Your task to perform on an android device: Go to CNN.com Image 0: 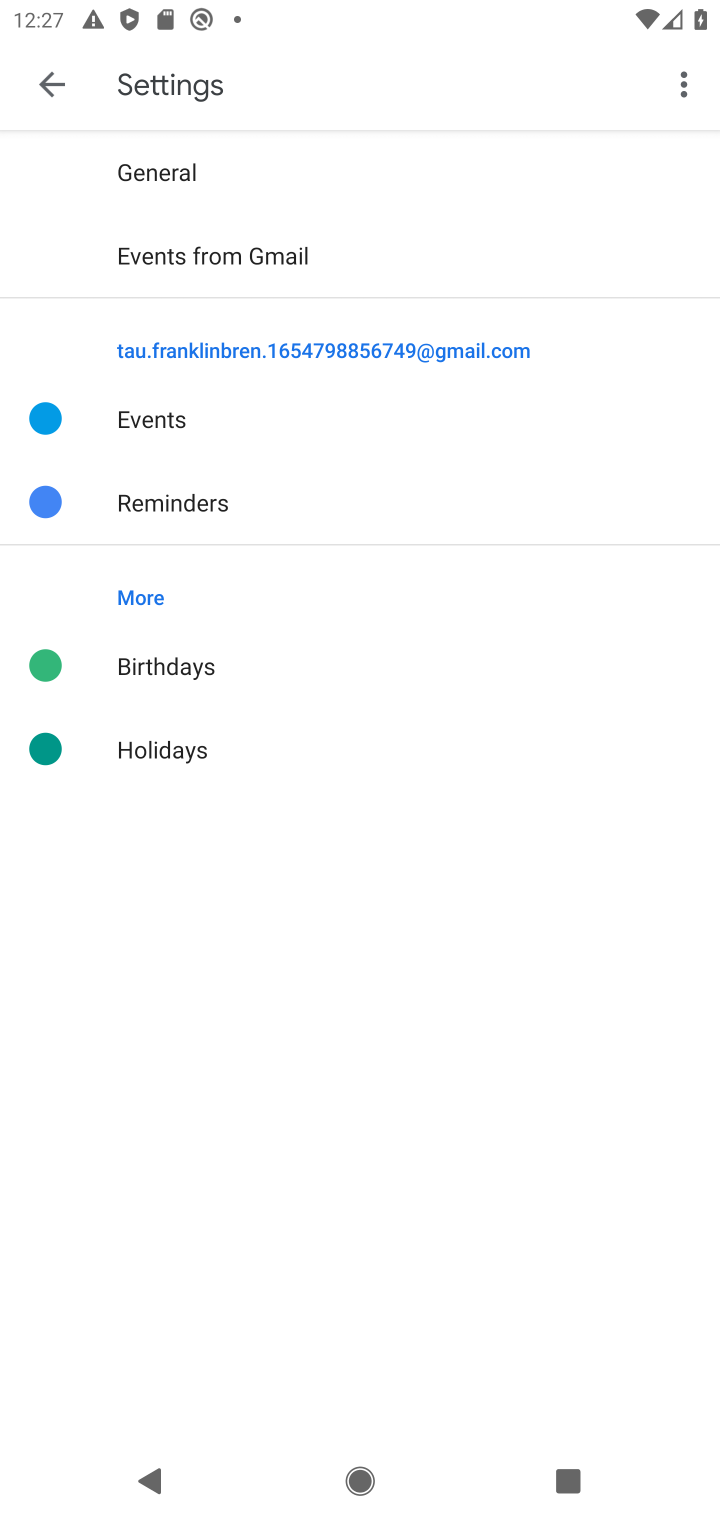
Step 0: press home button
Your task to perform on an android device: Go to CNN.com Image 1: 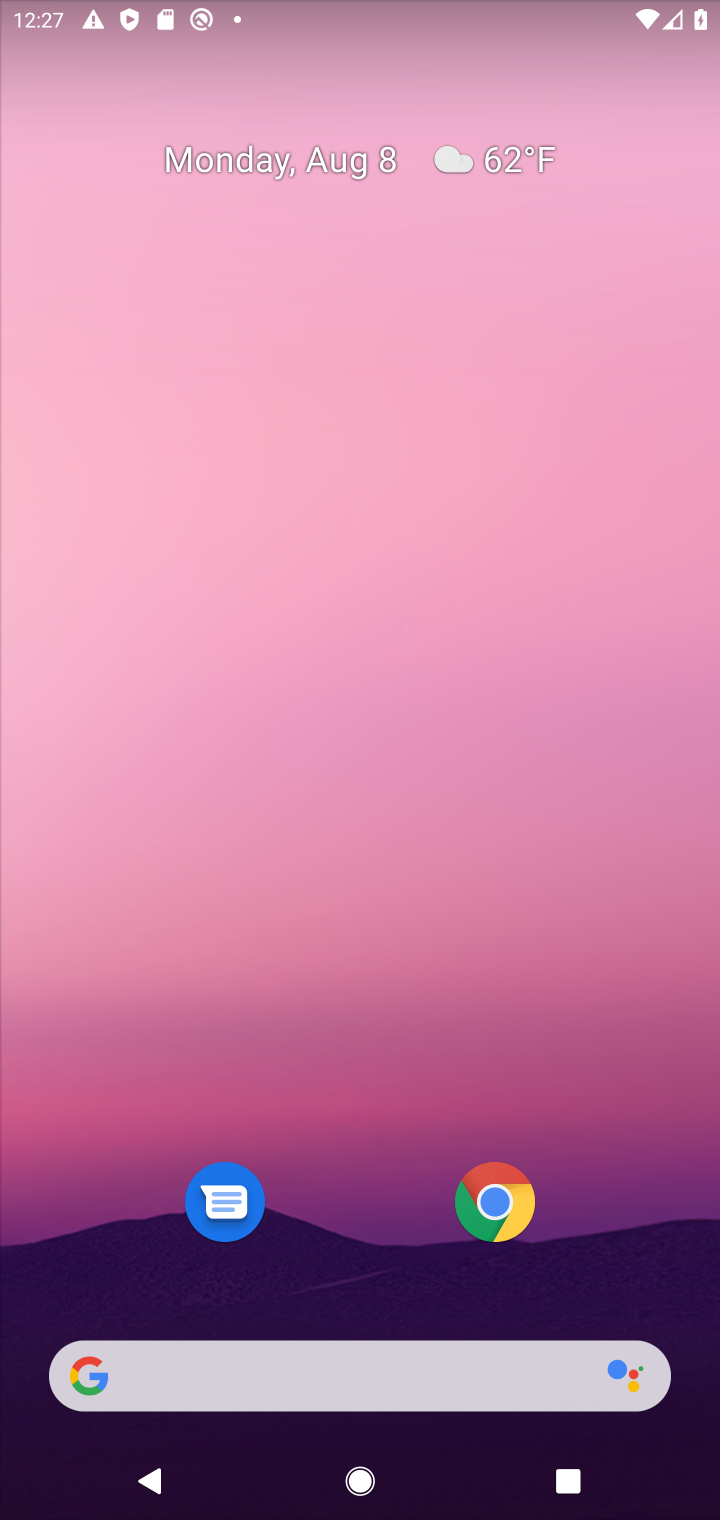
Step 1: drag from (380, 785) to (267, 71)
Your task to perform on an android device: Go to CNN.com Image 2: 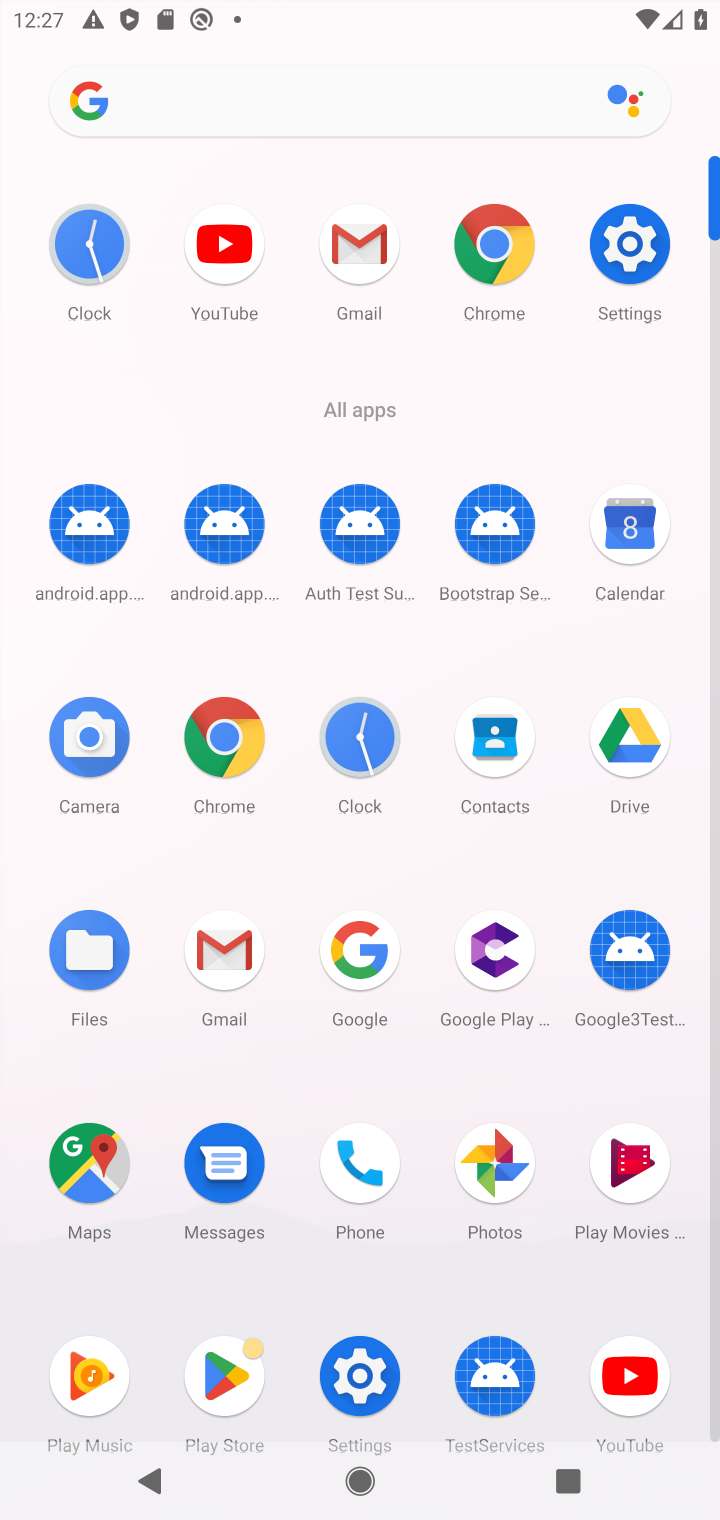
Step 2: click (501, 254)
Your task to perform on an android device: Go to CNN.com Image 3: 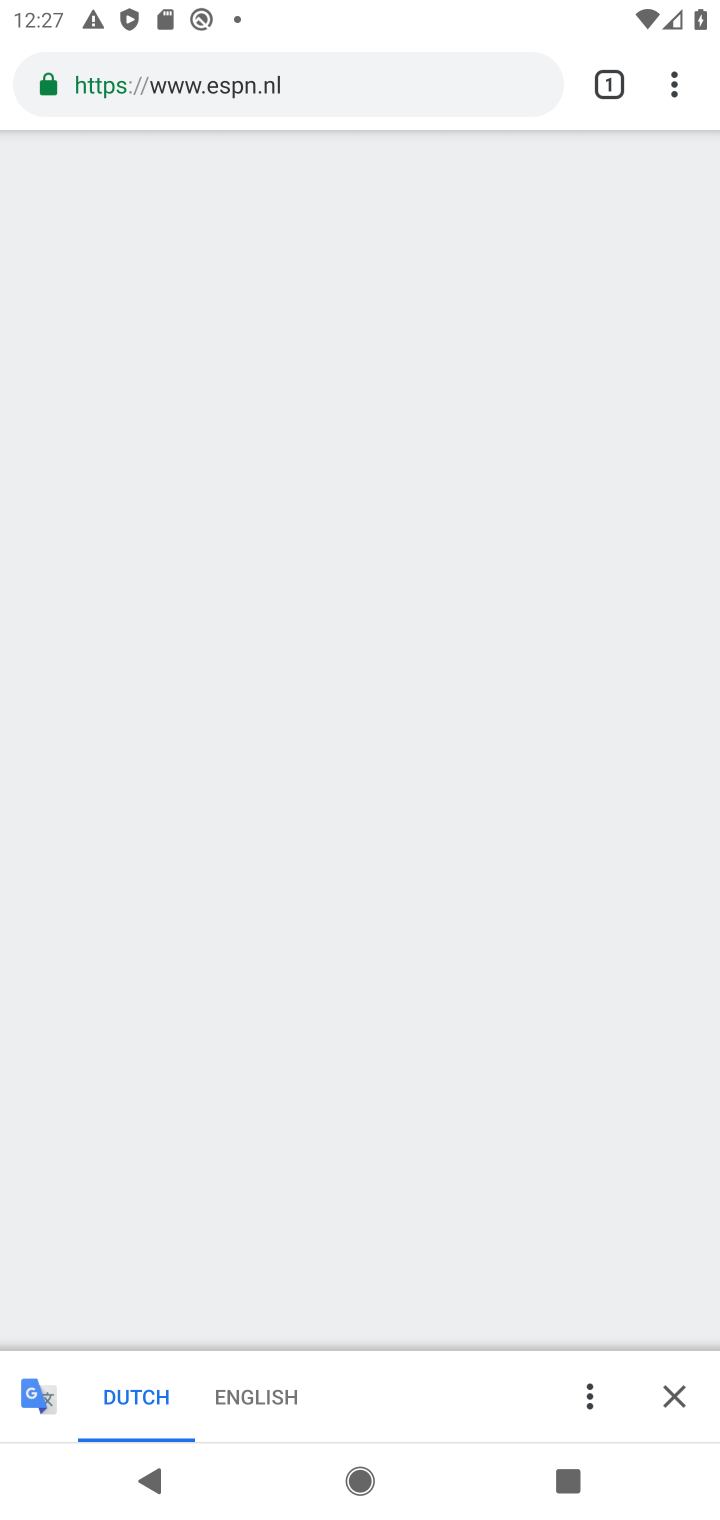
Step 3: click (232, 85)
Your task to perform on an android device: Go to CNN.com Image 4: 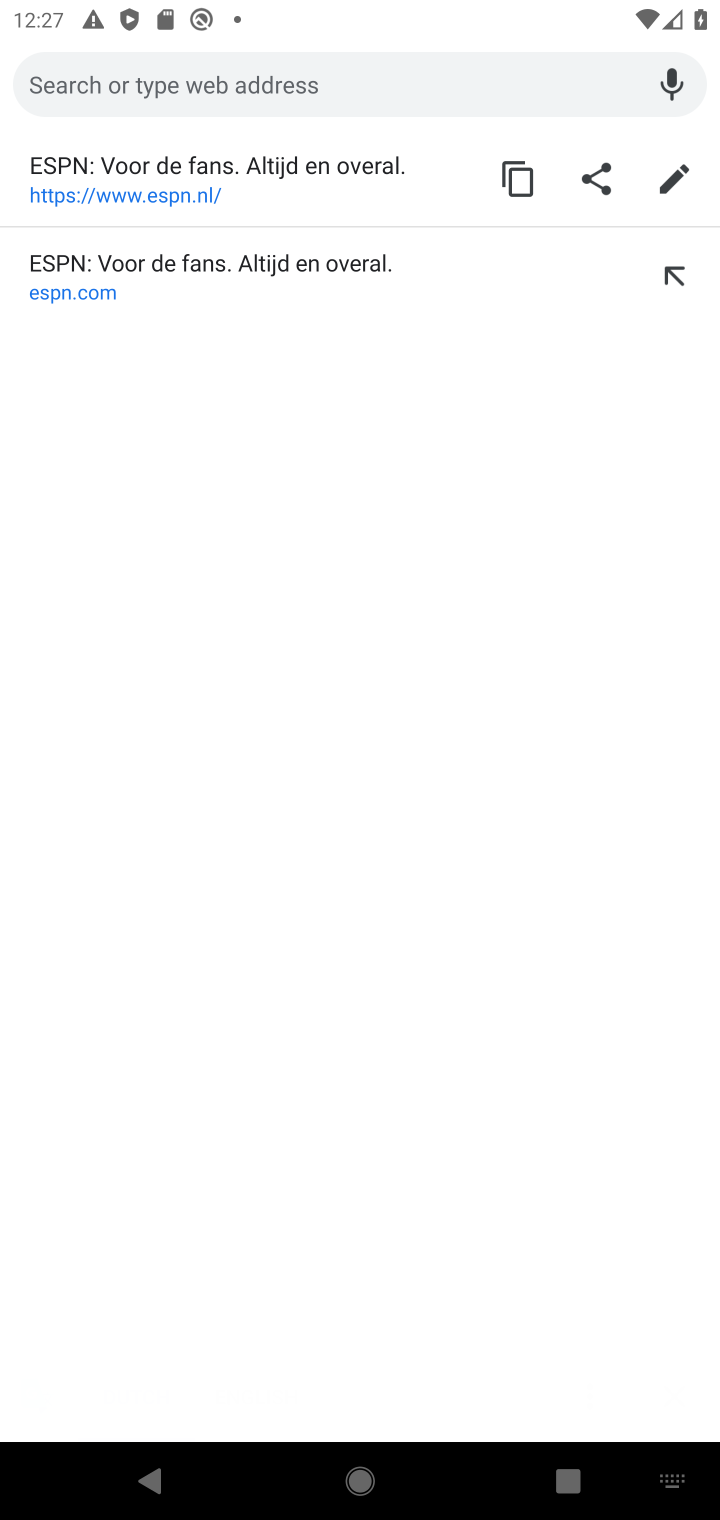
Step 4: type "www.cnn.com"
Your task to perform on an android device: Go to CNN.com Image 5: 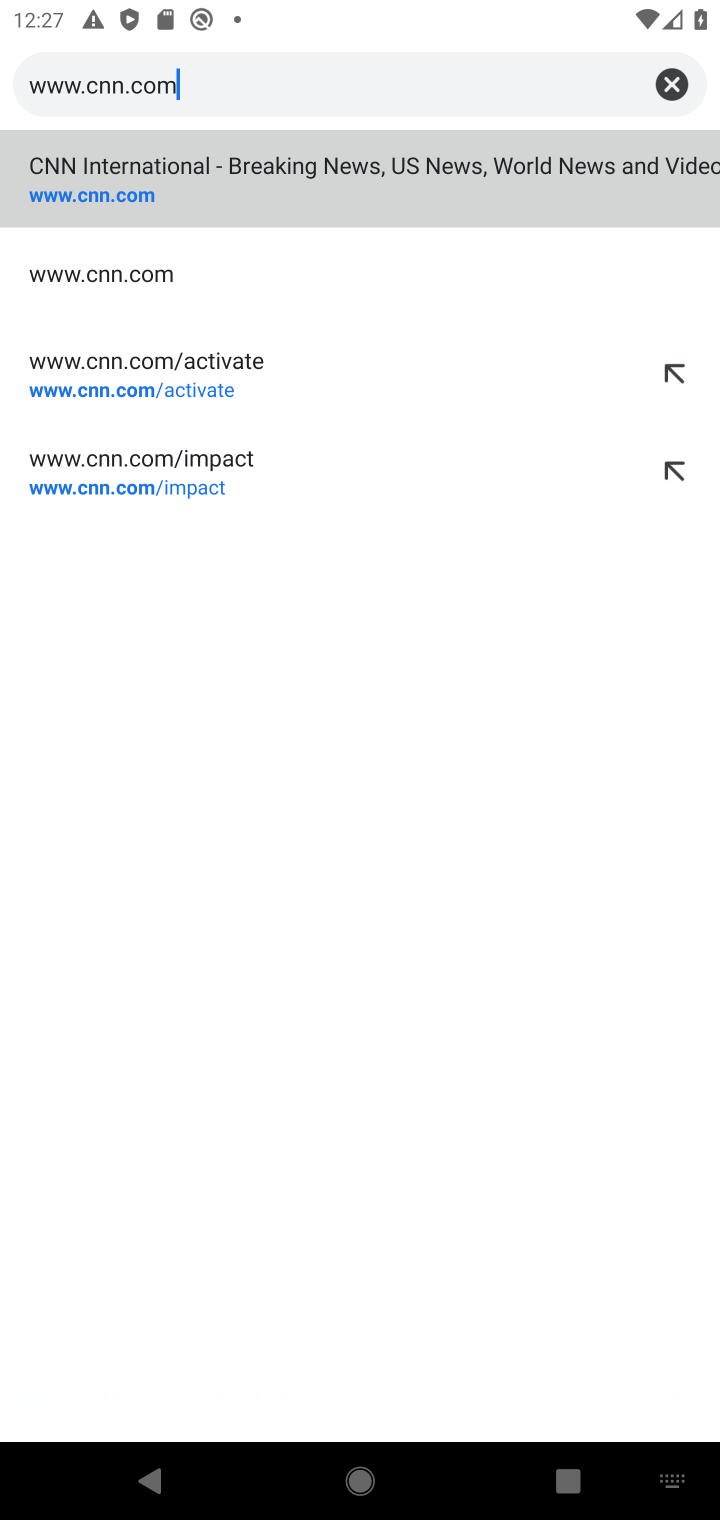
Step 5: click (102, 175)
Your task to perform on an android device: Go to CNN.com Image 6: 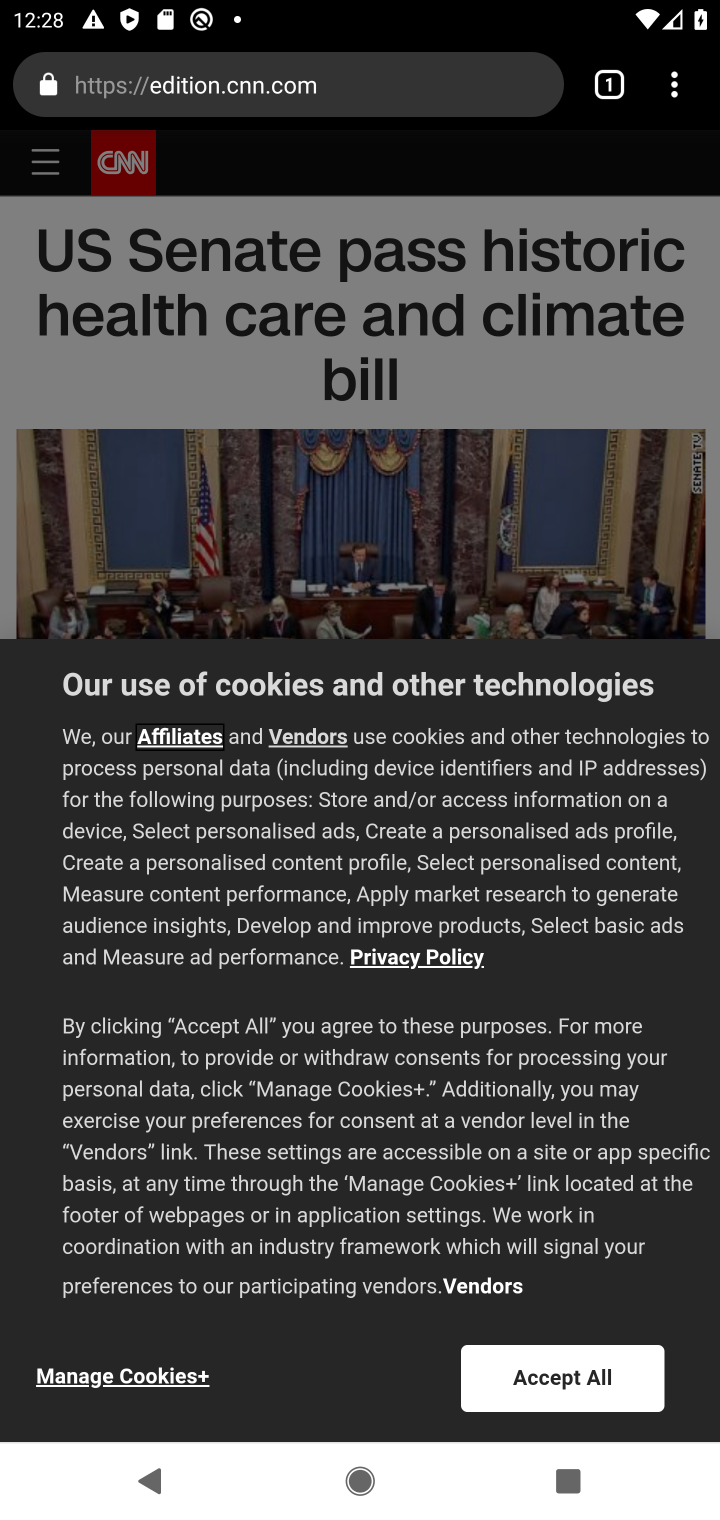
Step 6: task complete